Your task to perform on an android device: uninstall "Pandora - Music & Podcasts" Image 0: 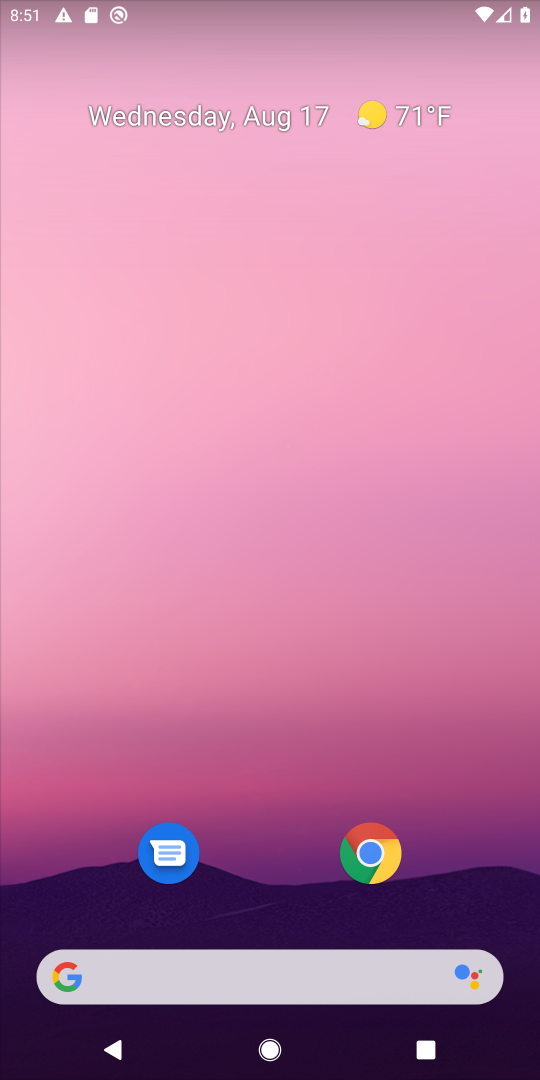
Step 0: drag from (278, 884) to (340, 169)
Your task to perform on an android device: uninstall "Pandora - Music & Podcasts" Image 1: 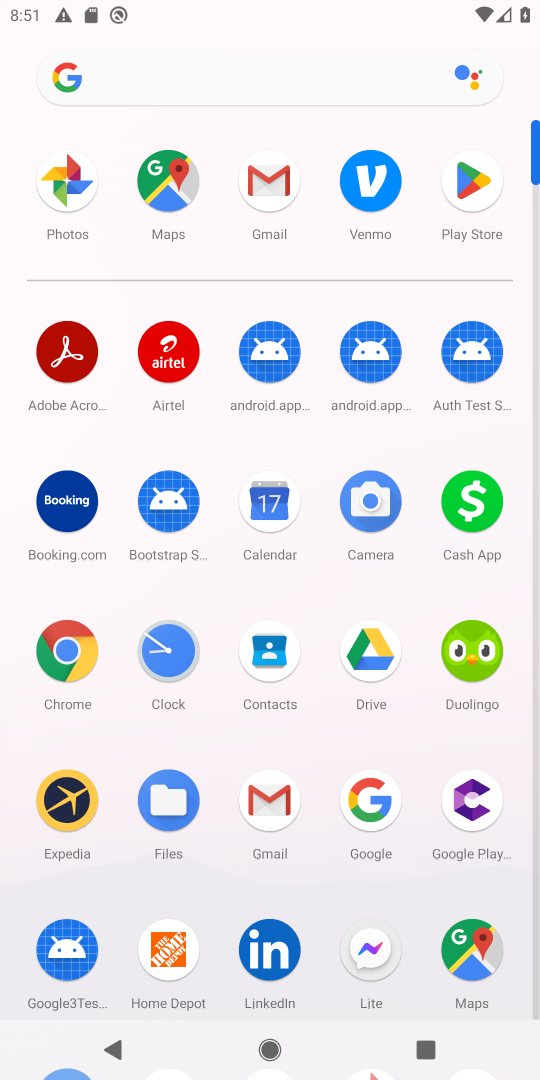
Step 1: click (483, 171)
Your task to perform on an android device: uninstall "Pandora - Music & Podcasts" Image 2: 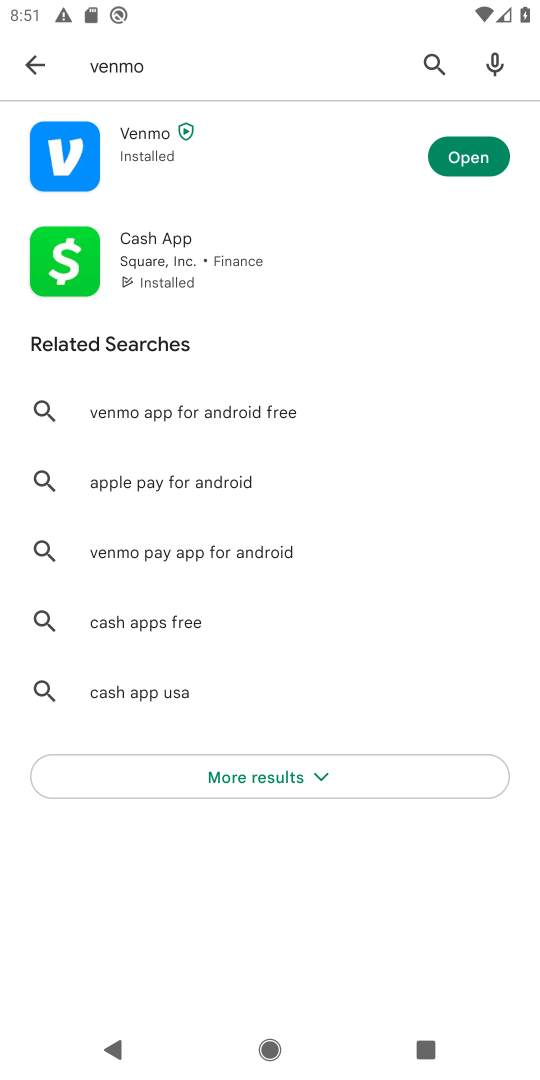
Step 2: click (439, 62)
Your task to perform on an android device: uninstall "Pandora - Music & Podcasts" Image 3: 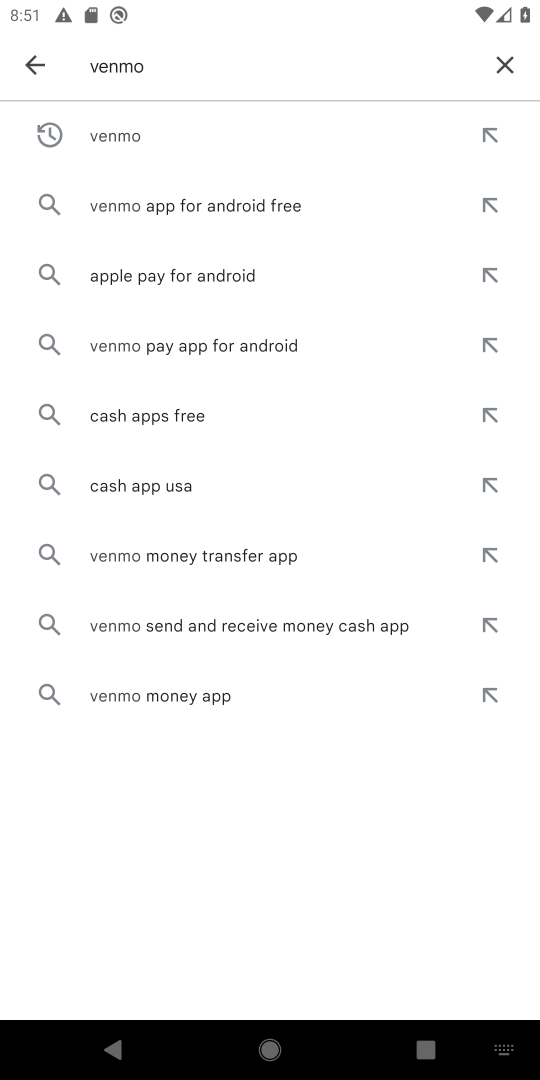
Step 3: click (512, 59)
Your task to perform on an android device: uninstall "Pandora - Music & Podcasts" Image 4: 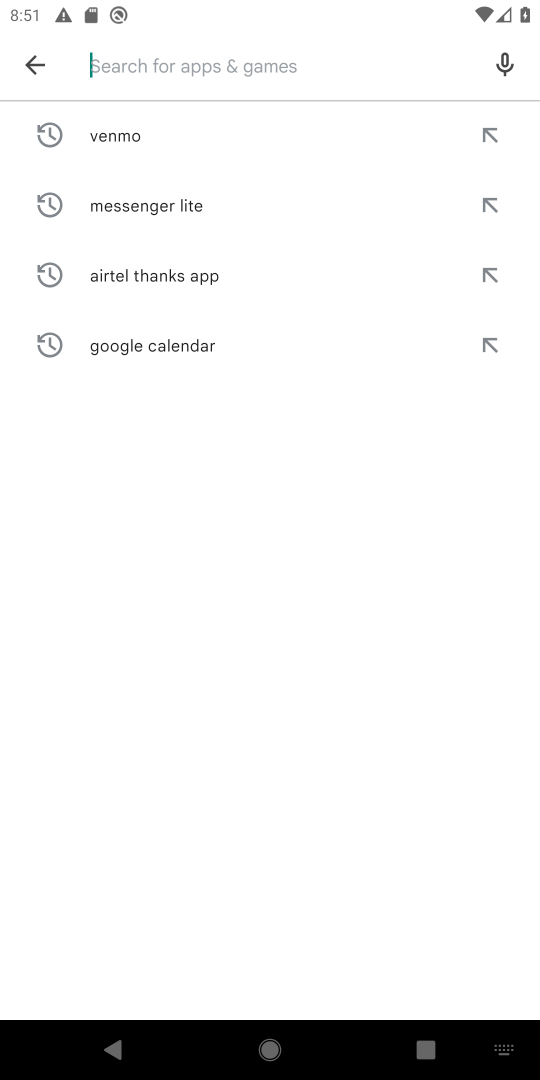
Step 4: type "Pandora - Music & Podcasts"
Your task to perform on an android device: uninstall "Pandora - Music & Podcasts" Image 5: 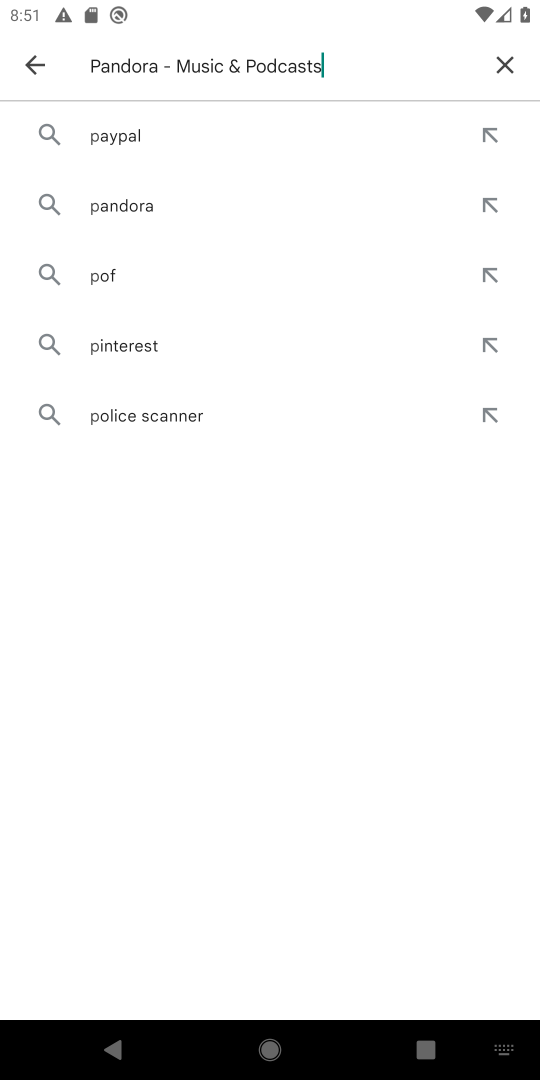
Step 5: type ""
Your task to perform on an android device: uninstall "Pandora - Music & Podcasts" Image 6: 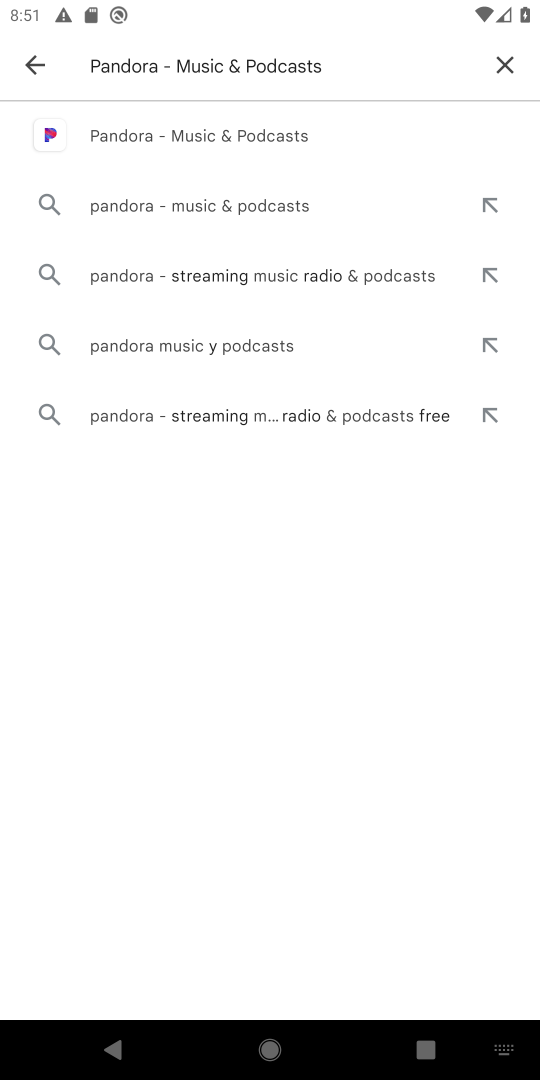
Step 6: click (194, 122)
Your task to perform on an android device: uninstall "Pandora - Music & Podcasts" Image 7: 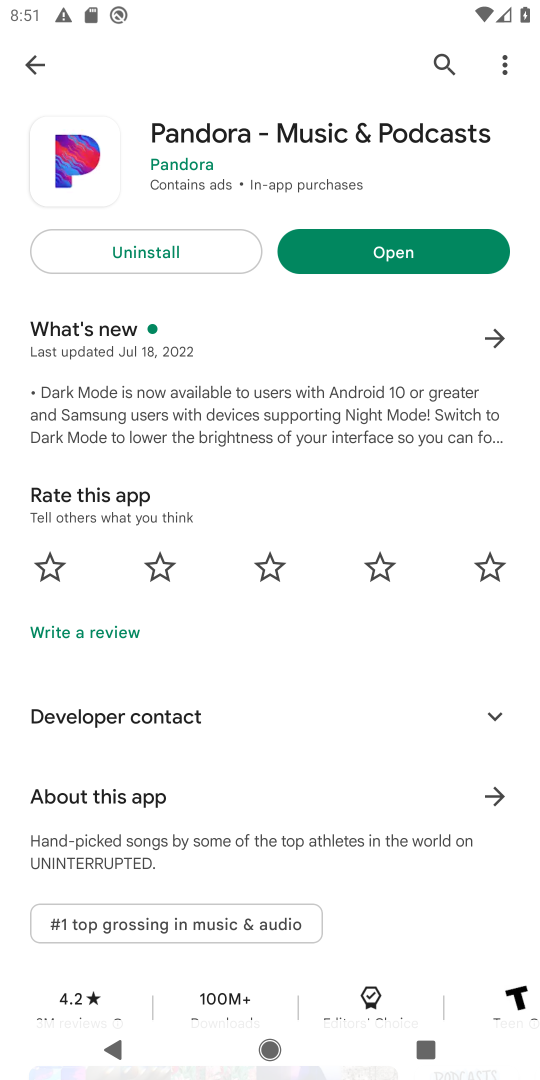
Step 7: click (211, 236)
Your task to perform on an android device: uninstall "Pandora - Music & Podcasts" Image 8: 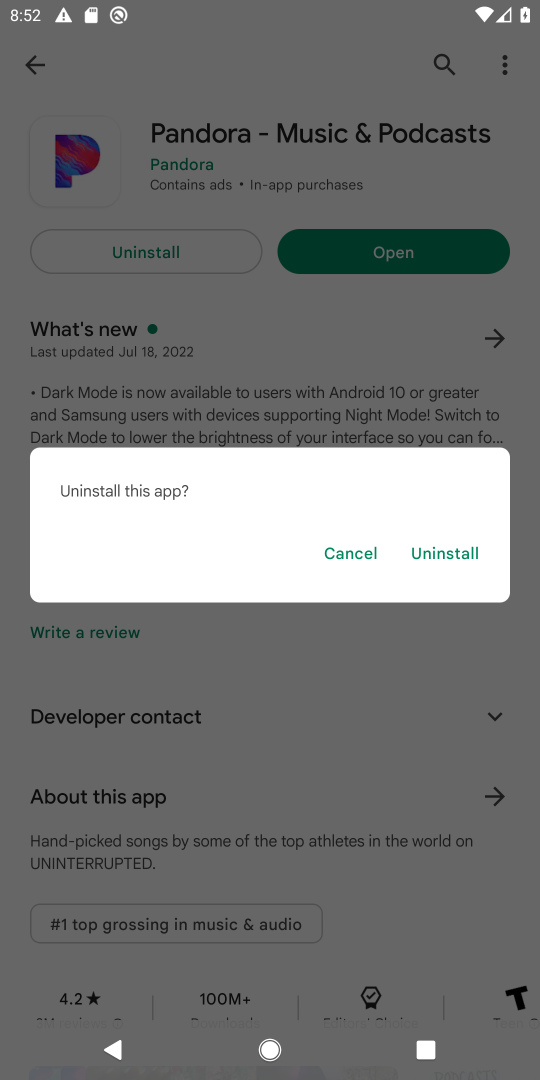
Step 8: click (446, 548)
Your task to perform on an android device: uninstall "Pandora - Music & Podcasts" Image 9: 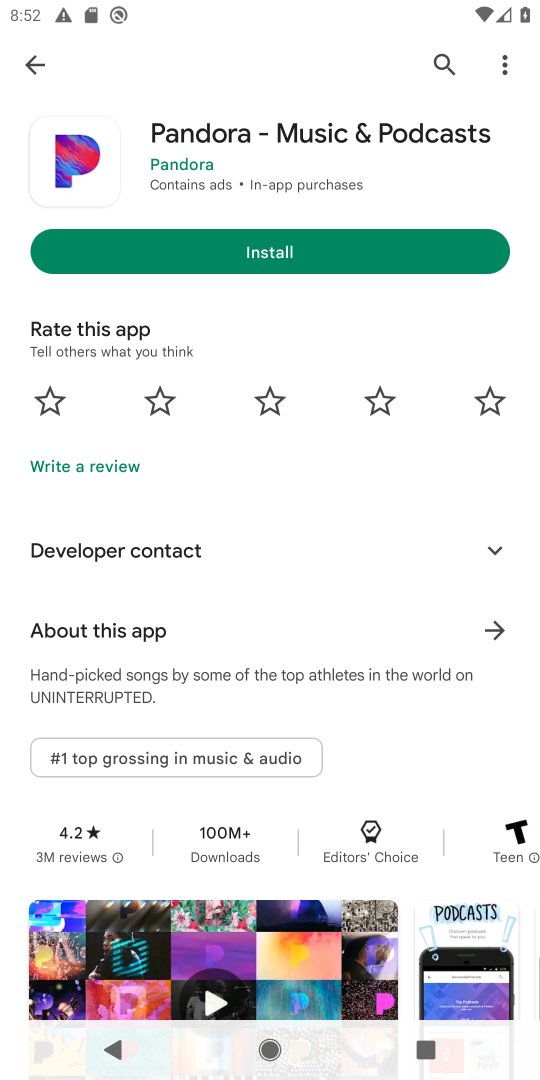
Step 9: task complete